Your task to perform on an android device: check android version Image 0: 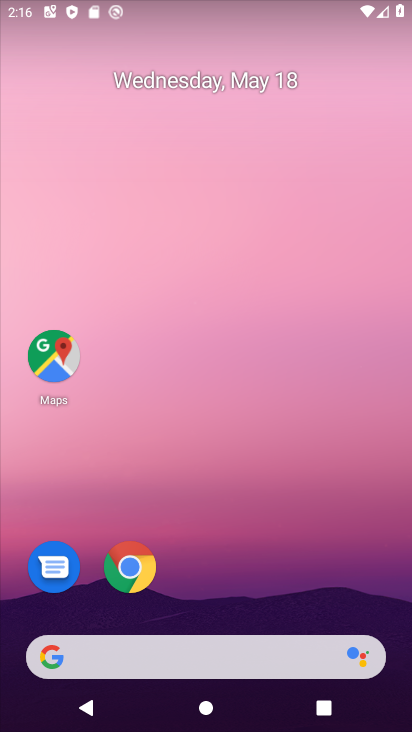
Step 0: drag from (286, 585) to (274, 270)
Your task to perform on an android device: check android version Image 1: 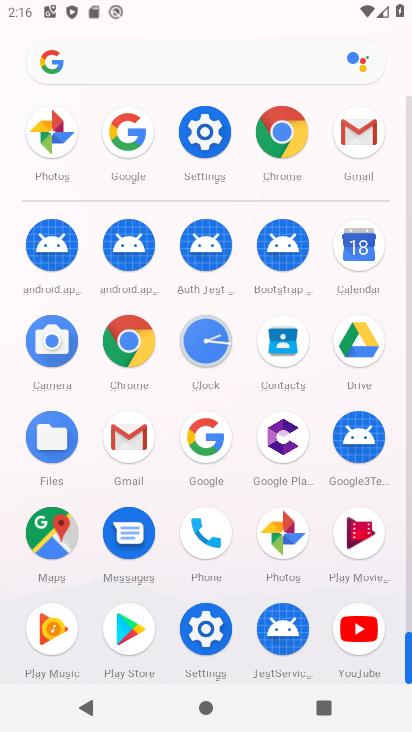
Step 1: click (196, 119)
Your task to perform on an android device: check android version Image 2: 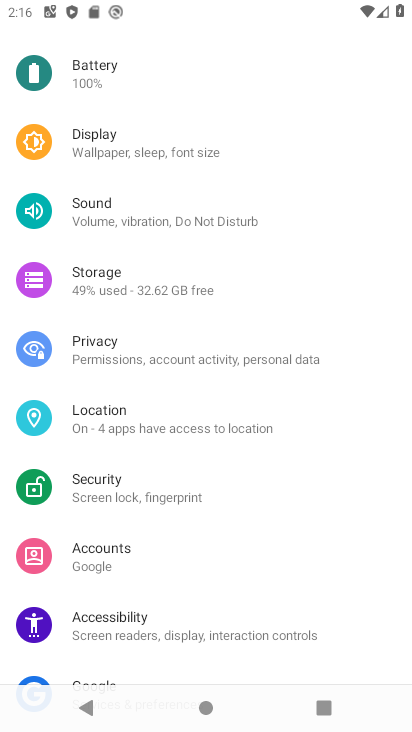
Step 2: drag from (168, 588) to (181, 220)
Your task to perform on an android device: check android version Image 3: 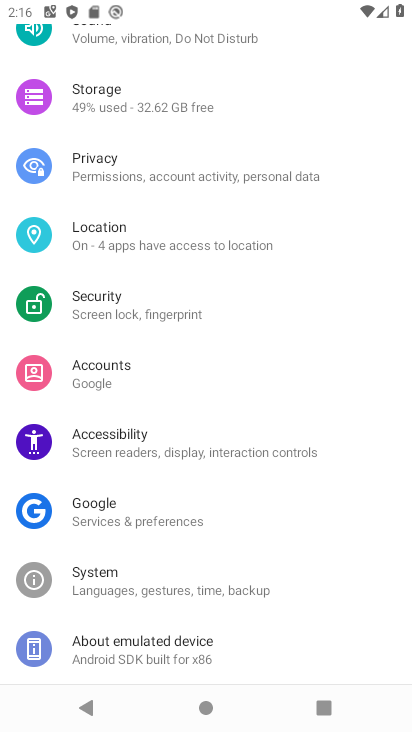
Step 3: click (143, 638)
Your task to perform on an android device: check android version Image 4: 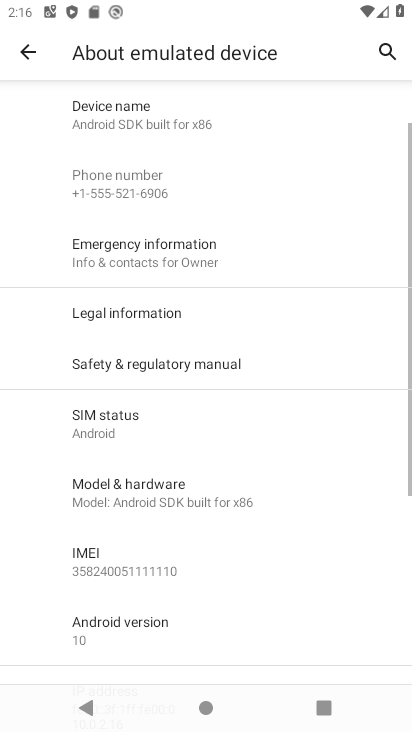
Step 4: drag from (182, 540) to (186, 204)
Your task to perform on an android device: check android version Image 5: 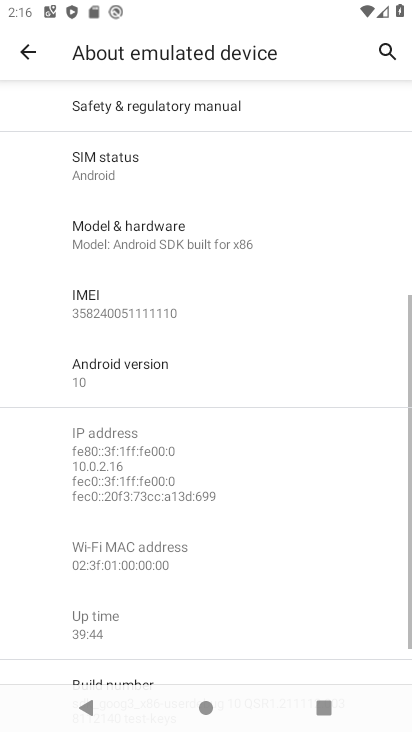
Step 5: click (150, 383)
Your task to perform on an android device: check android version Image 6: 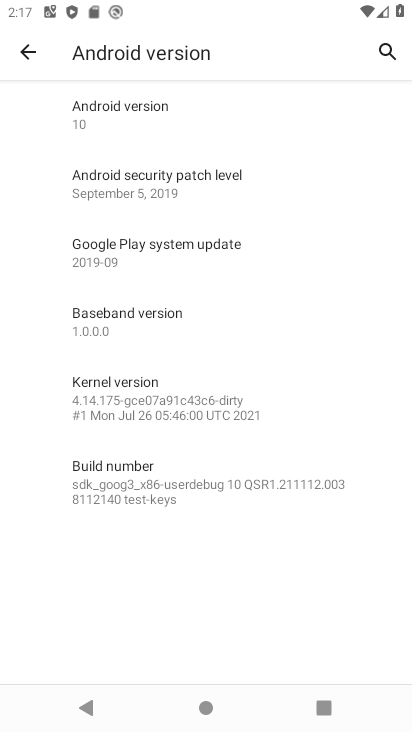
Step 6: task complete